Your task to perform on an android device: change timer sound Image 0: 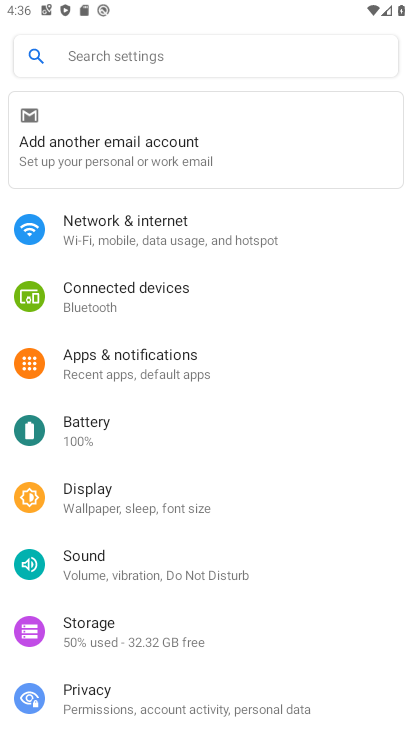
Step 0: press back button
Your task to perform on an android device: change timer sound Image 1: 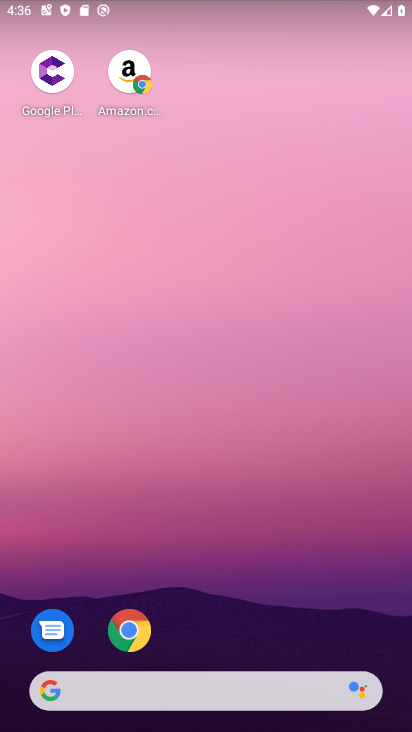
Step 1: drag from (337, 547) to (236, 25)
Your task to perform on an android device: change timer sound Image 2: 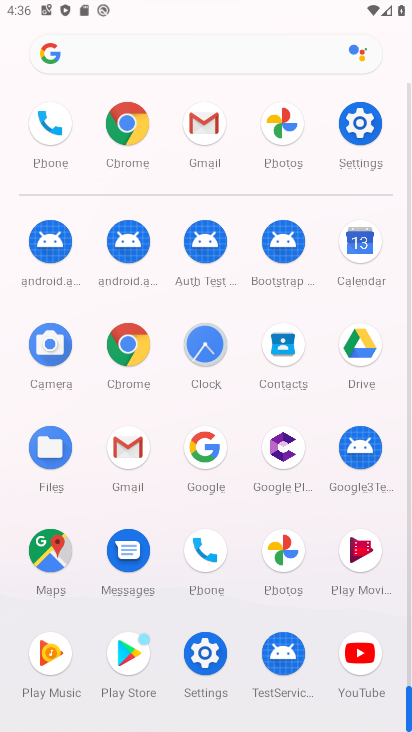
Step 2: click (203, 343)
Your task to perform on an android device: change timer sound Image 3: 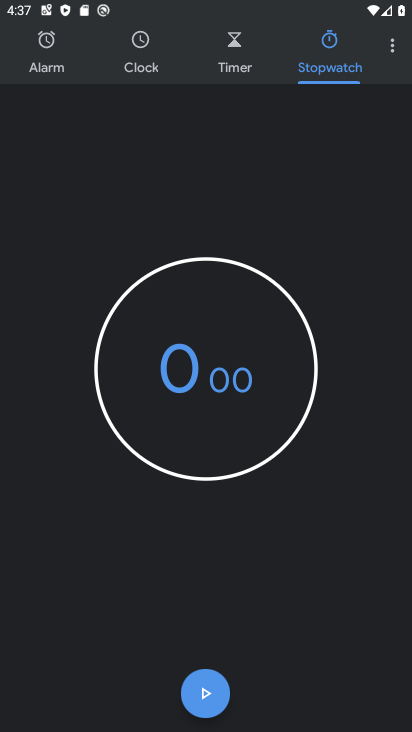
Step 3: drag from (399, 46) to (313, 88)
Your task to perform on an android device: change timer sound Image 4: 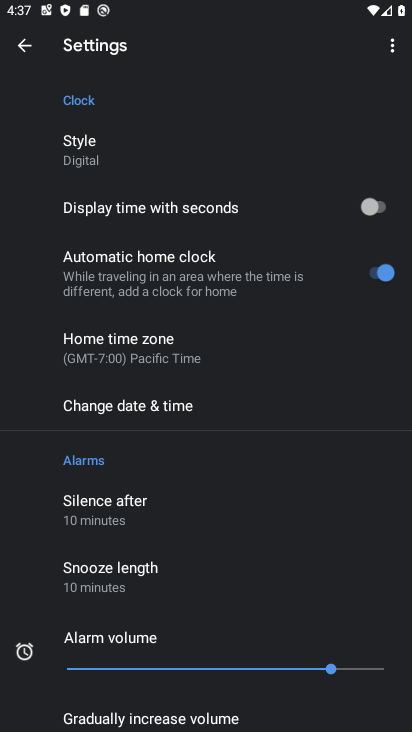
Step 4: drag from (235, 544) to (192, 228)
Your task to perform on an android device: change timer sound Image 5: 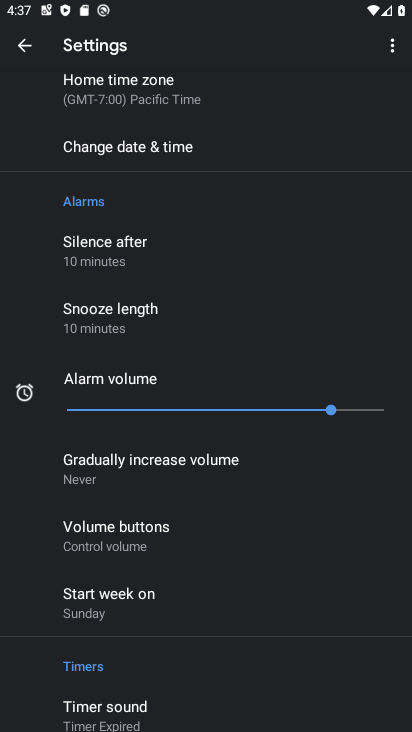
Step 5: drag from (198, 517) to (196, 256)
Your task to perform on an android device: change timer sound Image 6: 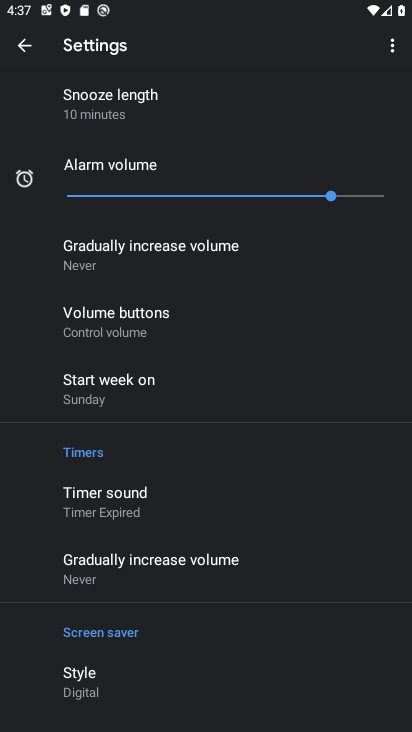
Step 6: click (147, 503)
Your task to perform on an android device: change timer sound Image 7: 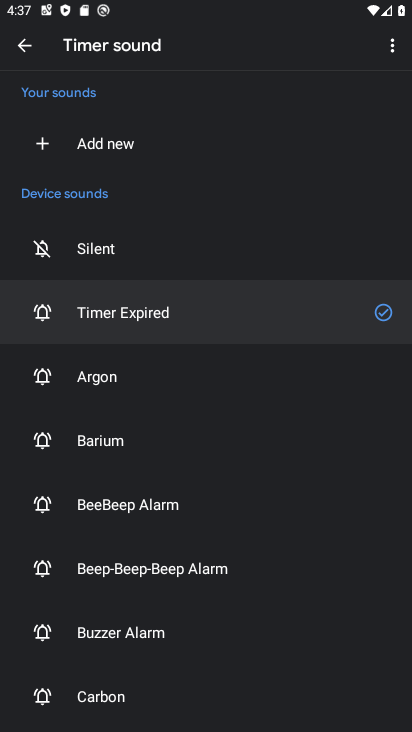
Step 7: click (122, 483)
Your task to perform on an android device: change timer sound Image 8: 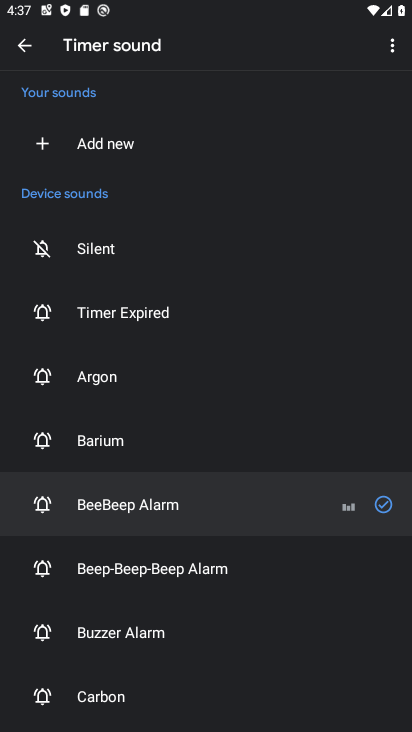
Step 8: task complete